Your task to perform on an android device: Open calendar and show me the second week of next month Image 0: 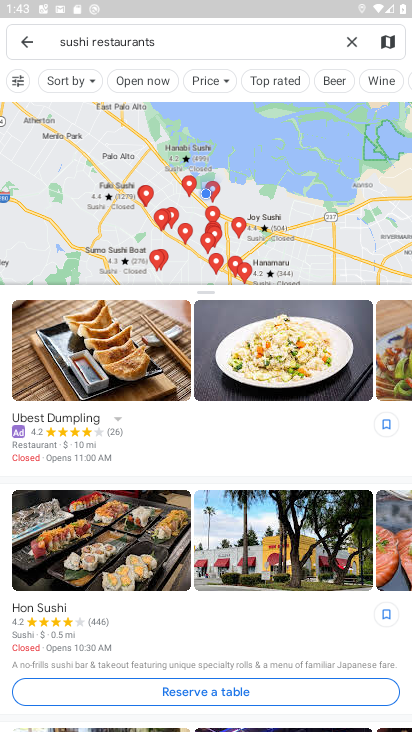
Step 0: press home button
Your task to perform on an android device: Open calendar and show me the second week of next month Image 1: 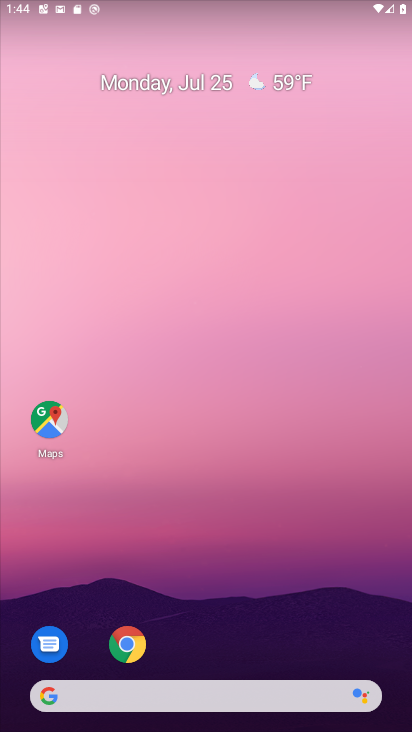
Step 1: drag from (391, 681) to (269, 31)
Your task to perform on an android device: Open calendar and show me the second week of next month Image 2: 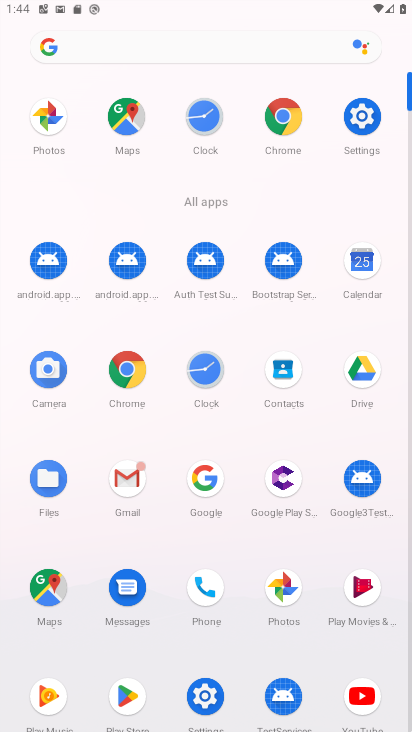
Step 2: click (361, 278)
Your task to perform on an android device: Open calendar and show me the second week of next month Image 3: 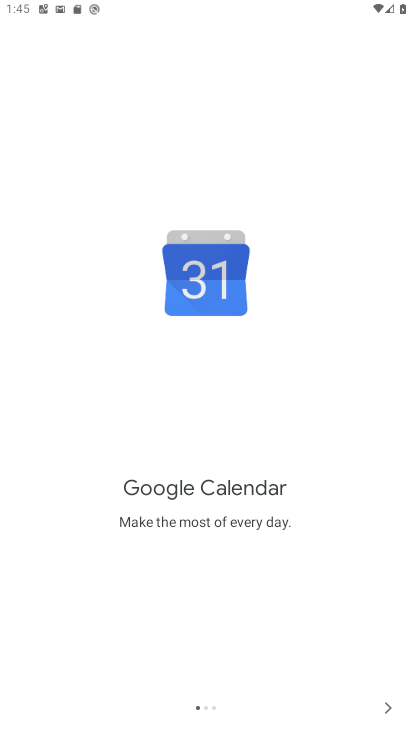
Step 3: click (389, 697)
Your task to perform on an android device: Open calendar and show me the second week of next month Image 4: 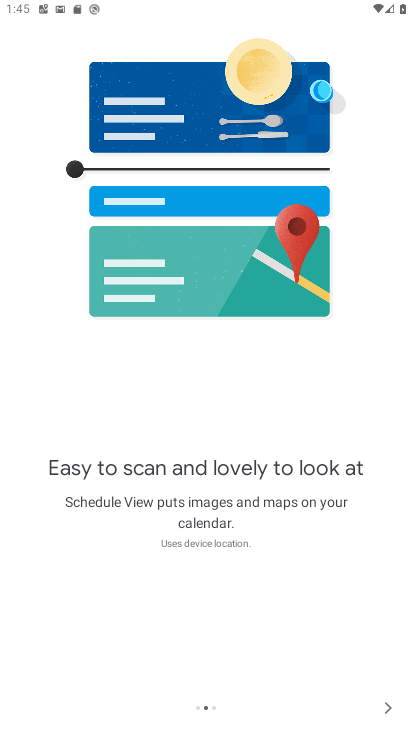
Step 4: click (388, 699)
Your task to perform on an android device: Open calendar and show me the second week of next month Image 5: 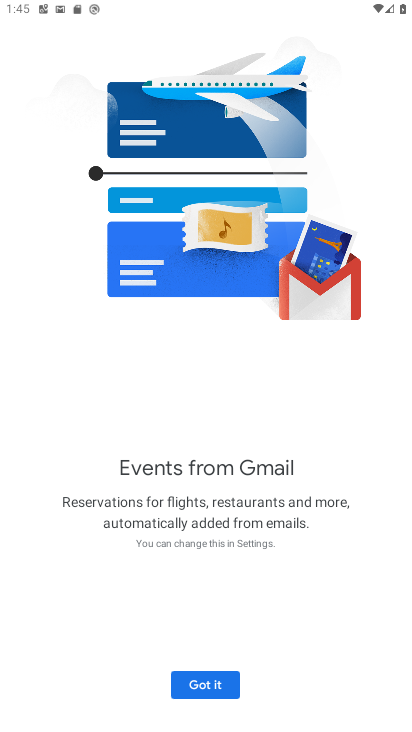
Step 5: click (216, 672)
Your task to perform on an android device: Open calendar and show me the second week of next month Image 6: 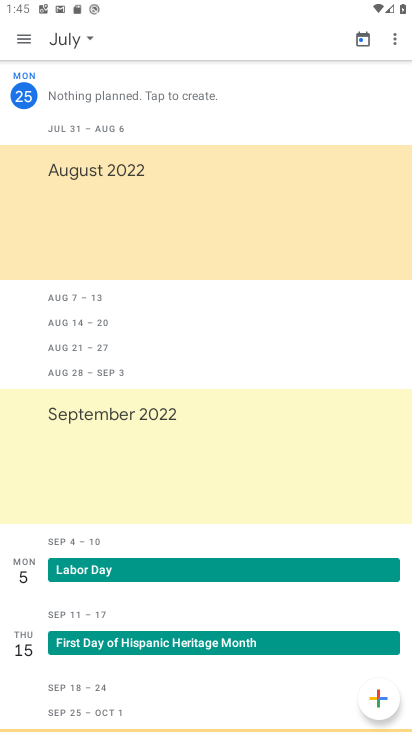
Step 6: click (93, 36)
Your task to perform on an android device: Open calendar and show me the second week of next month Image 7: 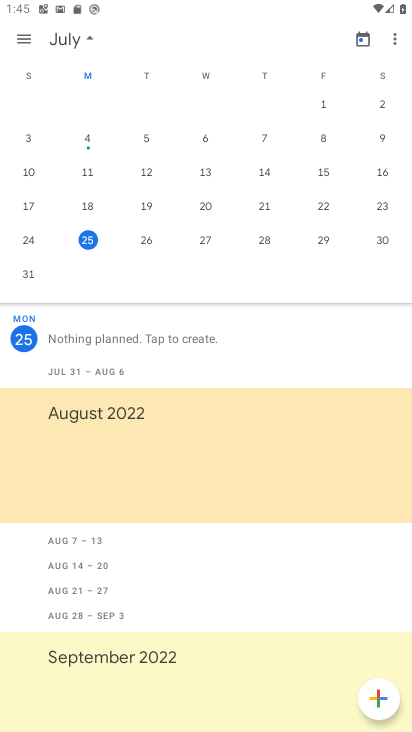
Step 7: drag from (386, 160) to (32, 169)
Your task to perform on an android device: Open calendar and show me the second week of next month Image 8: 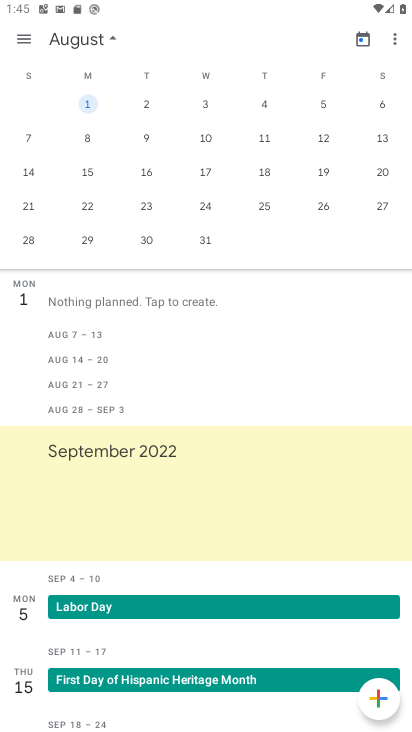
Step 8: click (199, 137)
Your task to perform on an android device: Open calendar and show me the second week of next month Image 9: 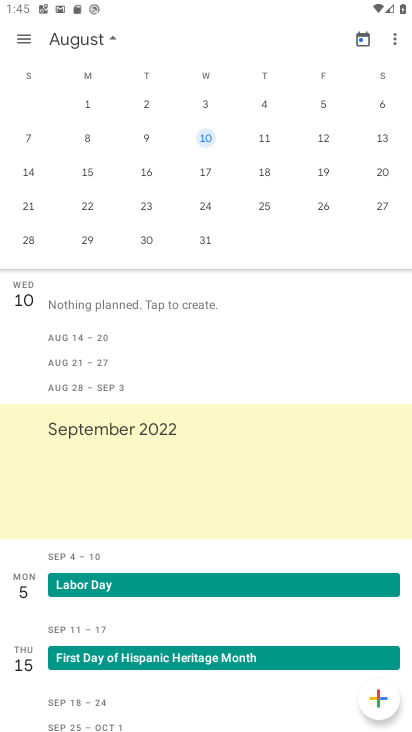
Step 9: task complete